Your task to perform on an android device: Go to sound settings Image 0: 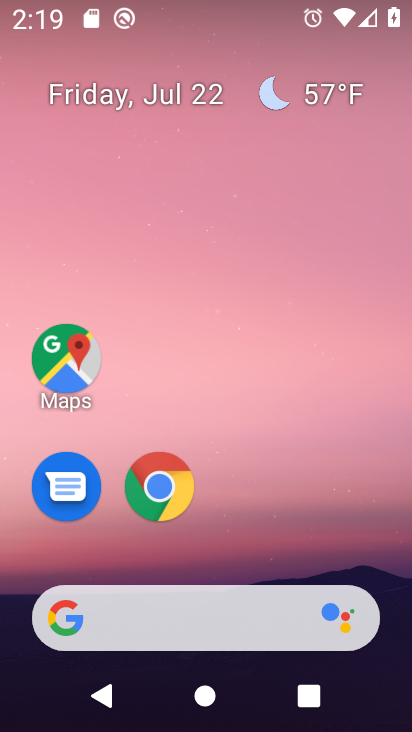
Step 0: drag from (383, 548) to (394, 74)
Your task to perform on an android device: Go to sound settings Image 1: 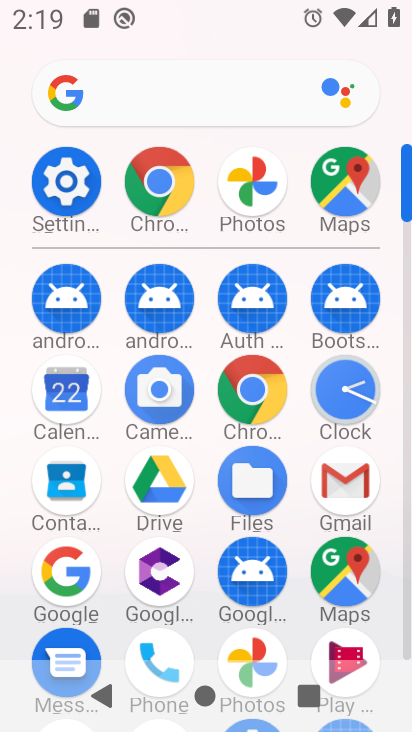
Step 1: click (73, 182)
Your task to perform on an android device: Go to sound settings Image 2: 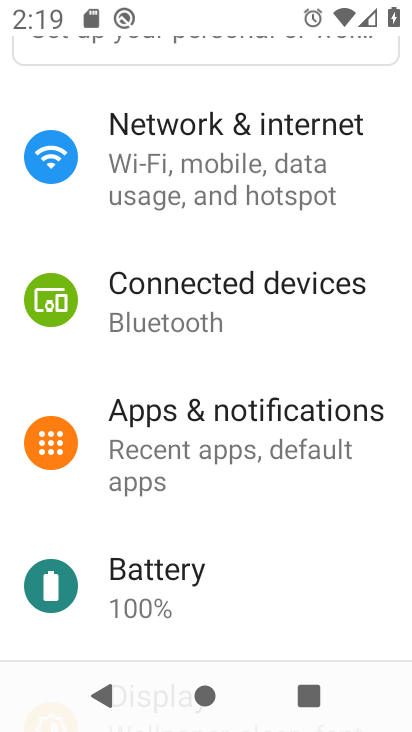
Step 2: drag from (371, 176) to (371, 274)
Your task to perform on an android device: Go to sound settings Image 3: 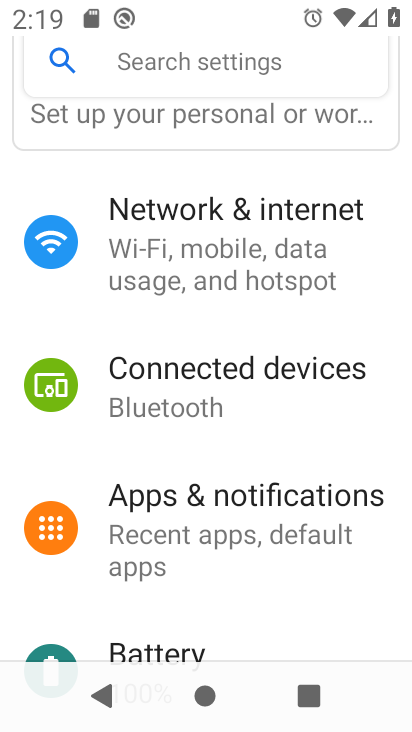
Step 3: drag from (375, 155) to (368, 401)
Your task to perform on an android device: Go to sound settings Image 4: 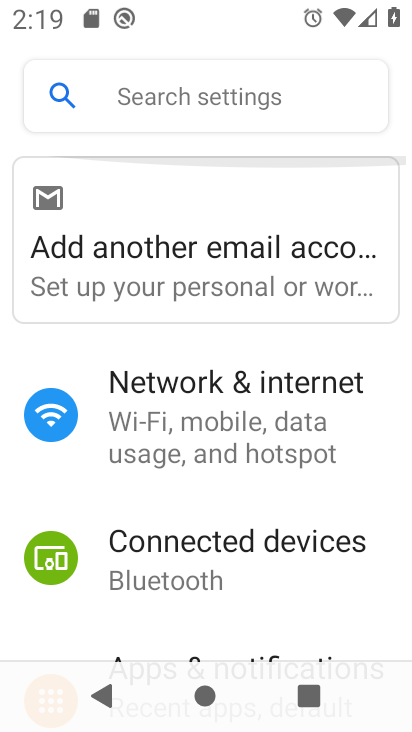
Step 4: drag from (371, 432) to (379, 334)
Your task to perform on an android device: Go to sound settings Image 5: 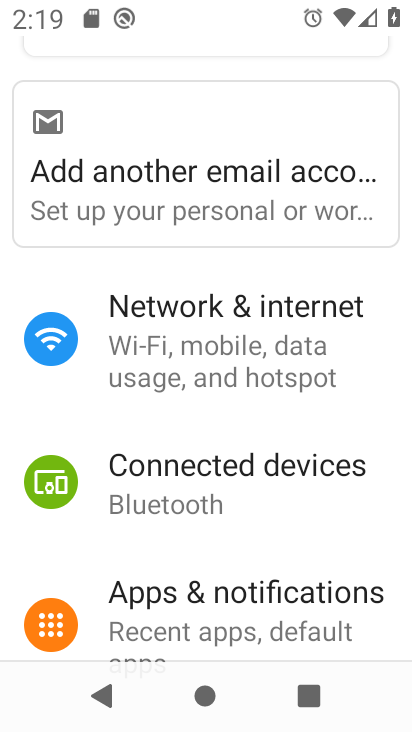
Step 5: drag from (382, 429) to (380, 326)
Your task to perform on an android device: Go to sound settings Image 6: 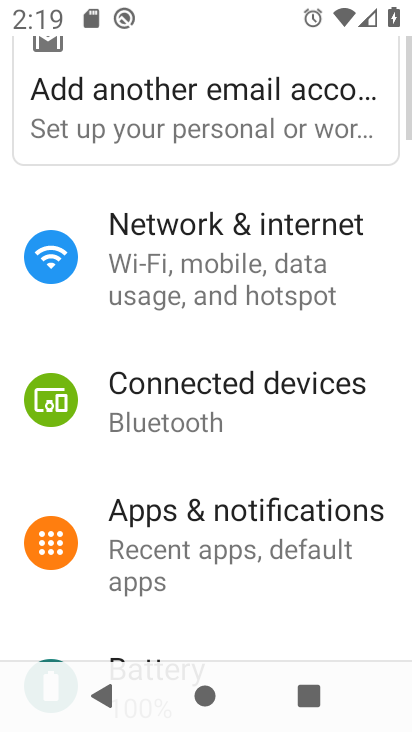
Step 6: drag from (374, 432) to (374, 328)
Your task to perform on an android device: Go to sound settings Image 7: 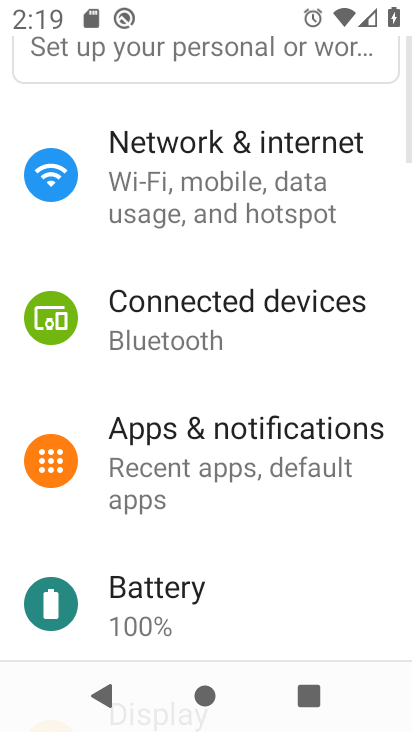
Step 7: drag from (360, 483) to (364, 375)
Your task to perform on an android device: Go to sound settings Image 8: 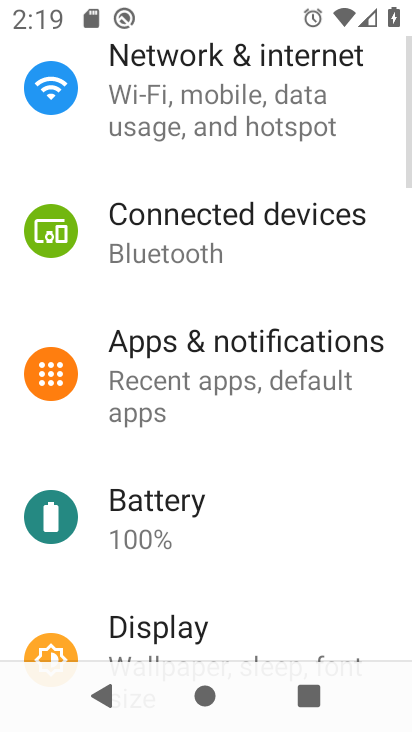
Step 8: drag from (355, 487) to (357, 397)
Your task to perform on an android device: Go to sound settings Image 9: 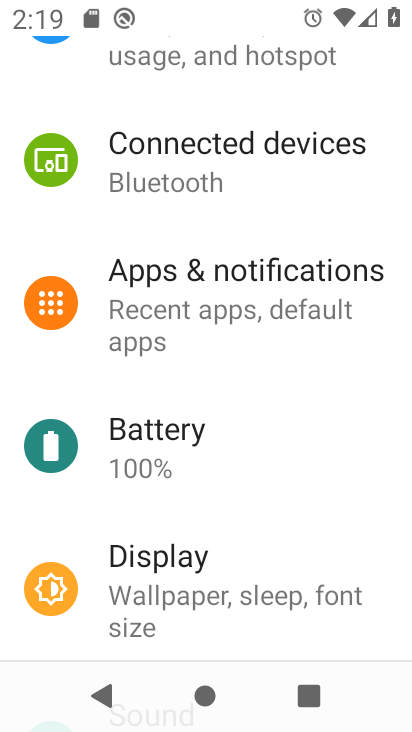
Step 9: drag from (340, 491) to (339, 387)
Your task to perform on an android device: Go to sound settings Image 10: 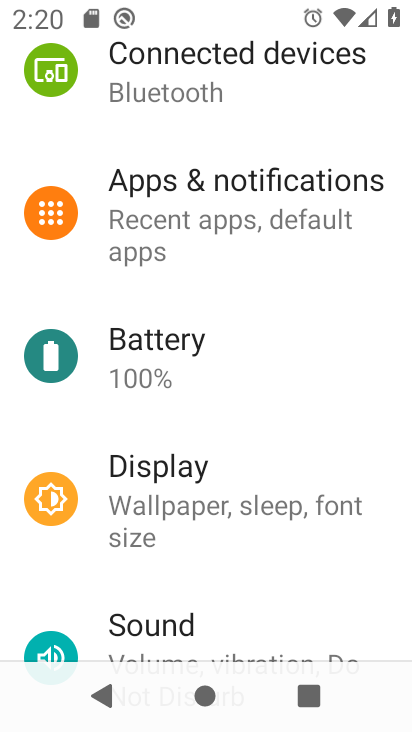
Step 10: drag from (340, 541) to (338, 415)
Your task to perform on an android device: Go to sound settings Image 11: 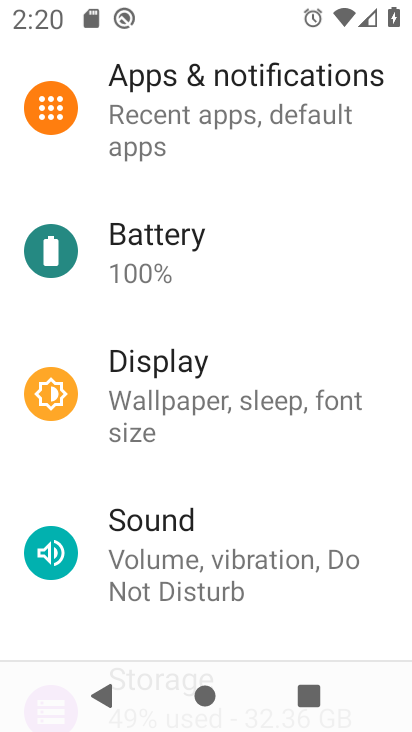
Step 11: drag from (327, 493) to (329, 370)
Your task to perform on an android device: Go to sound settings Image 12: 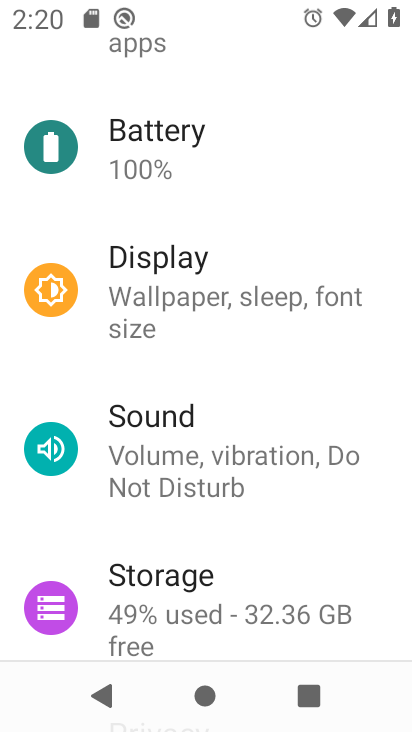
Step 12: drag from (318, 495) to (316, 391)
Your task to perform on an android device: Go to sound settings Image 13: 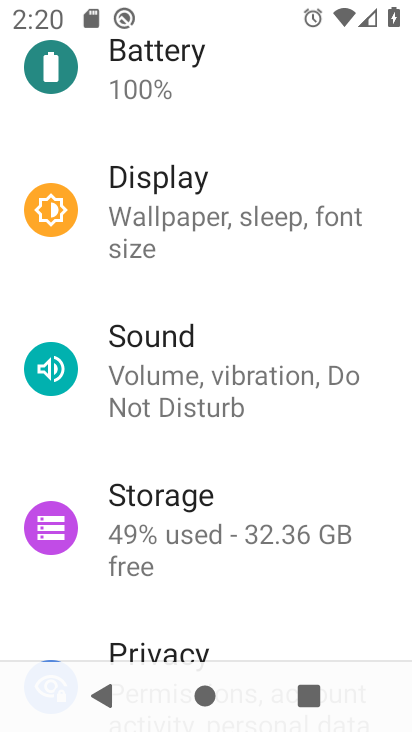
Step 13: click (316, 384)
Your task to perform on an android device: Go to sound settings Image 14: 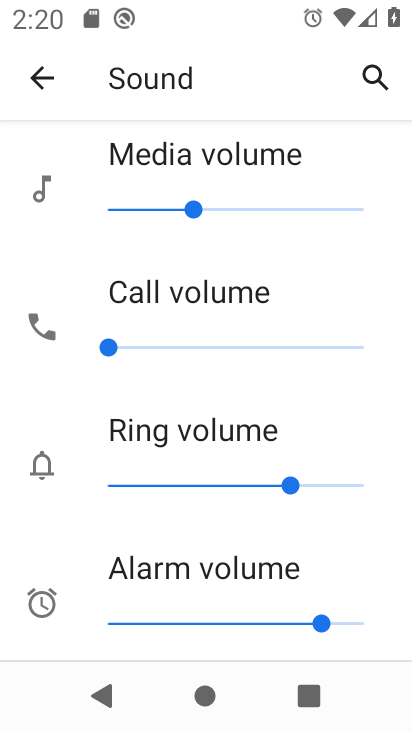
Step 14: task complete